Your task to perform on an android device: Look up the best rated gaming chairs on Target. Image 0: 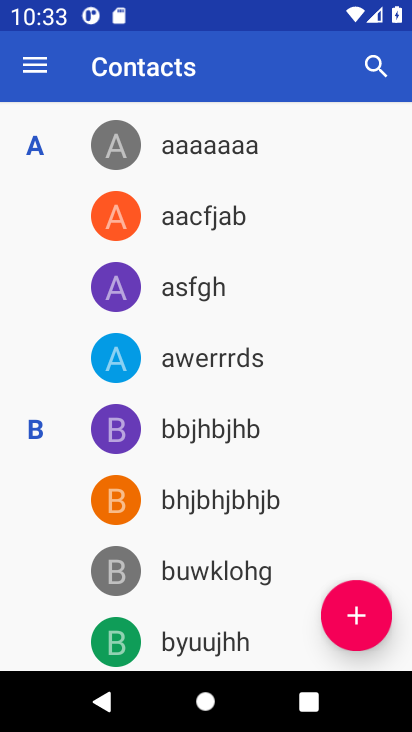
Step 0: press home button
Your task to perform on an android device: Look up the best rated gaming chairs on Target. Image 1: 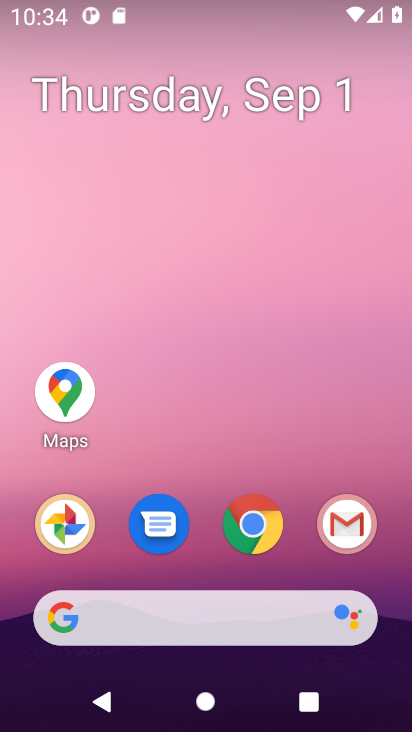
Step 1: drag from (387, 581) to (391, 140)
Your task to perform on an android device: Look up the best rated gaming chairs on Target. Image 2: 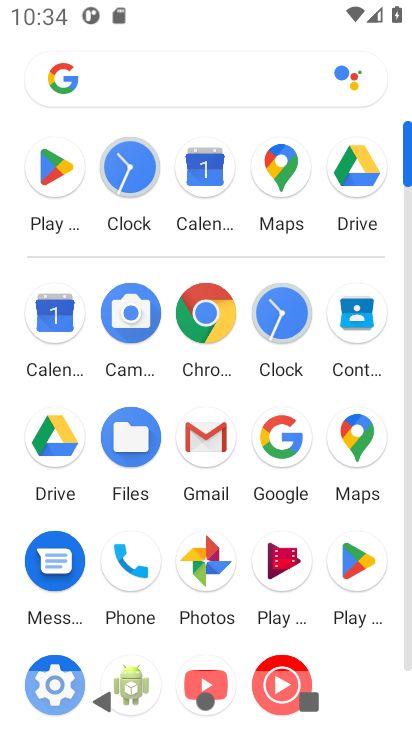
Step 2: click (206, 315)
Your task to perform on an android device: Look up the best rated gaming chairs on Target. Image 3: 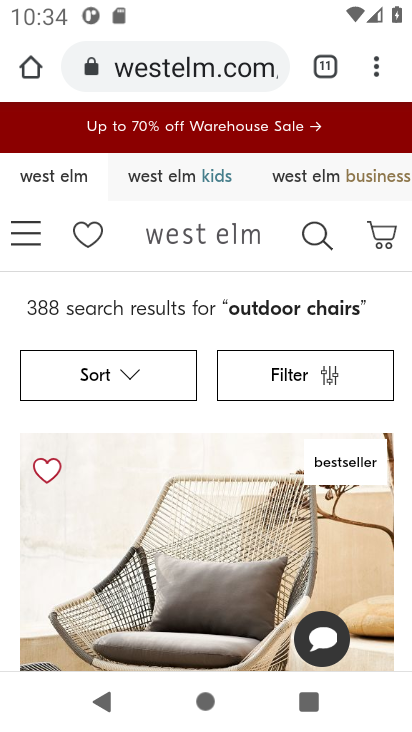
Step 3: click (248, 69)
Your task to perform on an android device: Look up the best rated gaming chairs on Target. Image 4: 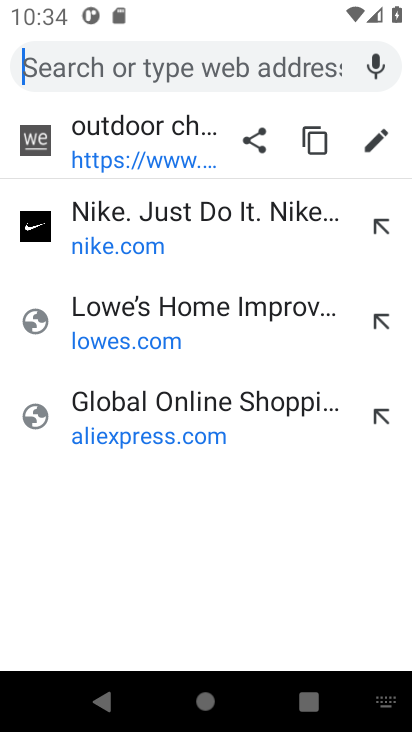
Step 4: type "target"
Your task to perform on an android device: Look up the best rated gaming chairs on Target. Image 5: 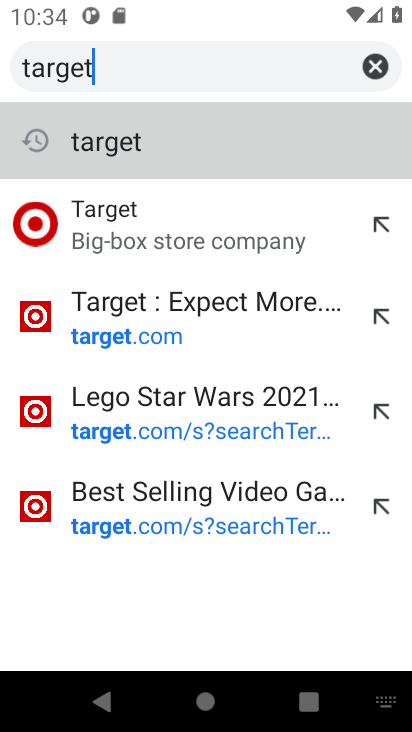
Step 5: click (143, 141)
Your task to perform on an android device: Look up the best rated gaming chairs on Target. Image 6: 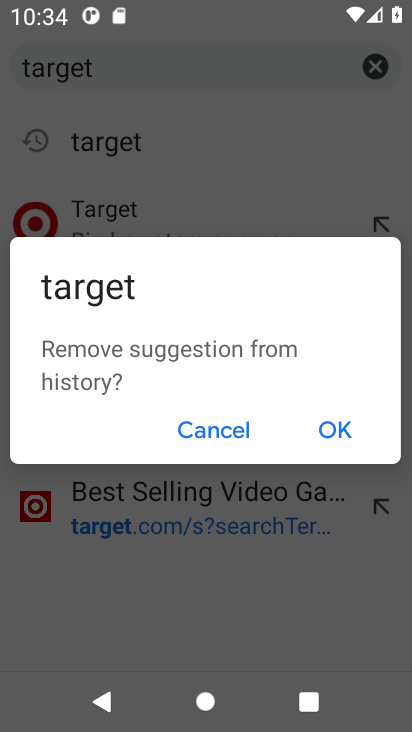
Step 6: click (182, 441)
Your task to perform on an android device: Look up the best rated gaming chairs on Target. Image 7: 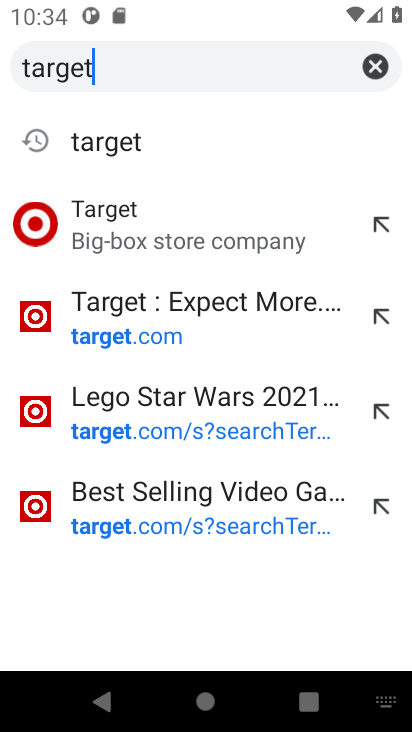
Step 7: click (128, 139)
Your task to perform on an android device: Look up the best rated gaming chairs on Target. Image 8: 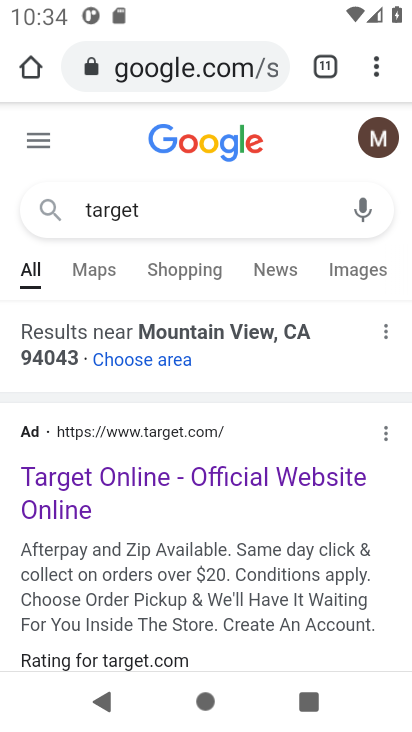
Step 8: click (302, 477)
Your task to perform on an android device: Look up the best rated gaming chairs on Target. Image 9: 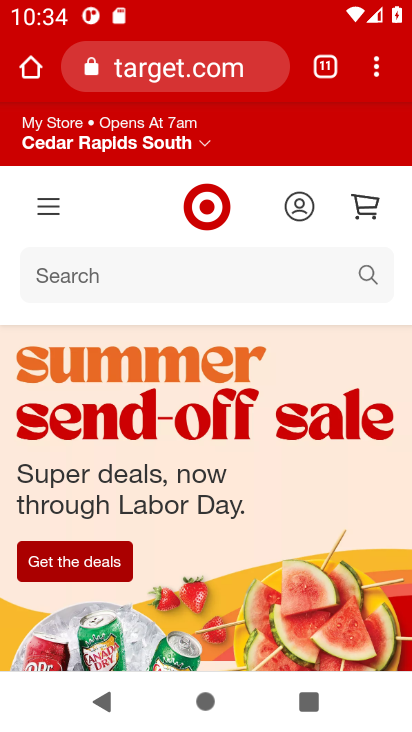
Step 9: click (106, 267)
Your task to perform on an android device: Look up the best rated gaming chairs on Target. Image 10: 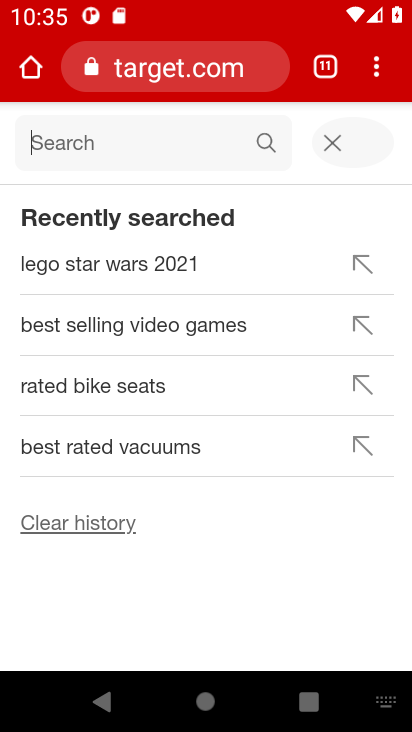
Step 10: press enter
Your task to perform on an android device: Look up the best rated gaming chairs on Target. Image 11: 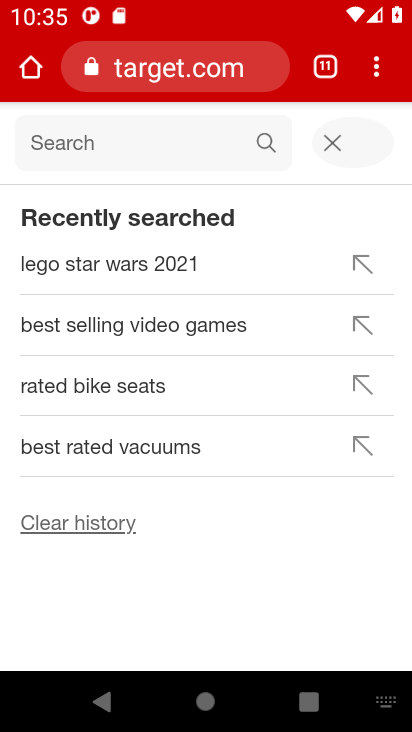
Step 11: type " best rated gaming chairs"
Your task to perform on an android device: Look up the best rated gaming chairs on Target. Image 12: 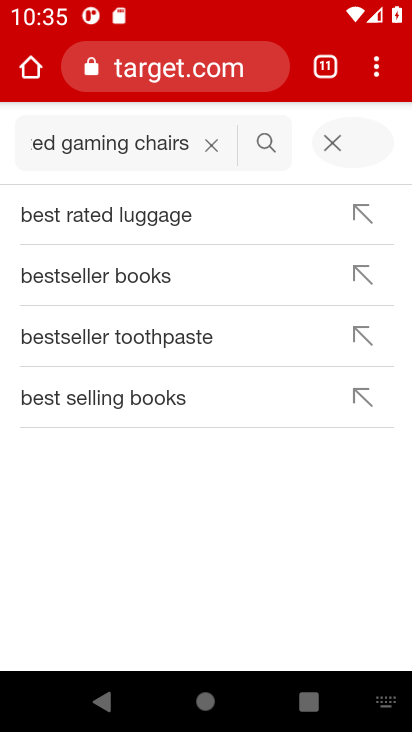
Step 12: click (271, 147)
Your task to perform on an android device: Look up the best rated gaming chairs on Target. Image 13: 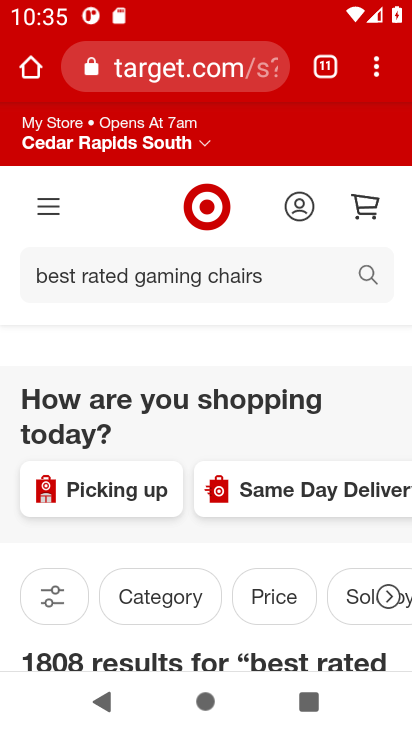
Step 13: task complete